Your task to perform on an android device: open app "Gmail" (install if not already installed) and enter user name: "undecidable@inbox.com" and password: "discouraging" Image 0: 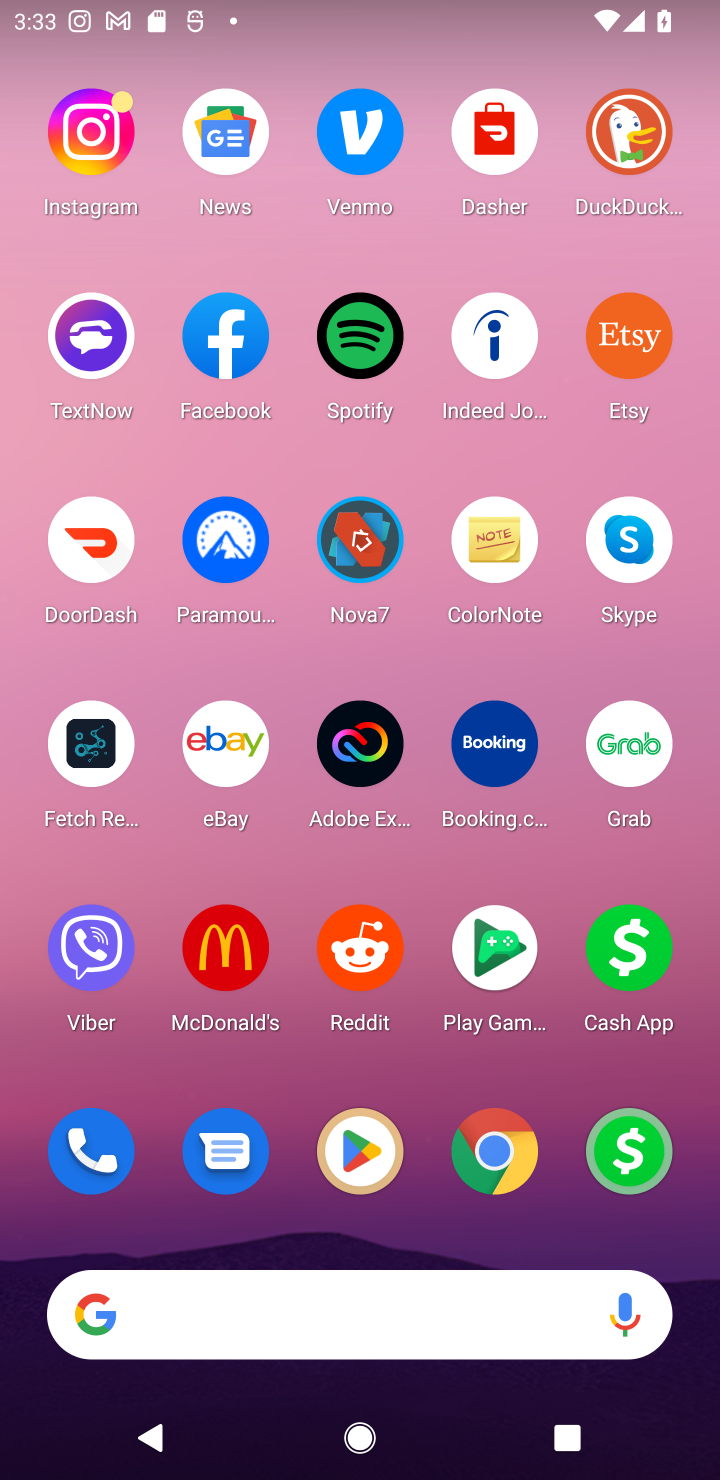
Step 0: press home button
Your task to perform on an android device: open app "Gmail" (install if not already installed) and enter user name: "undecidable@inbox.com" and password: "discouraging" Image 1: 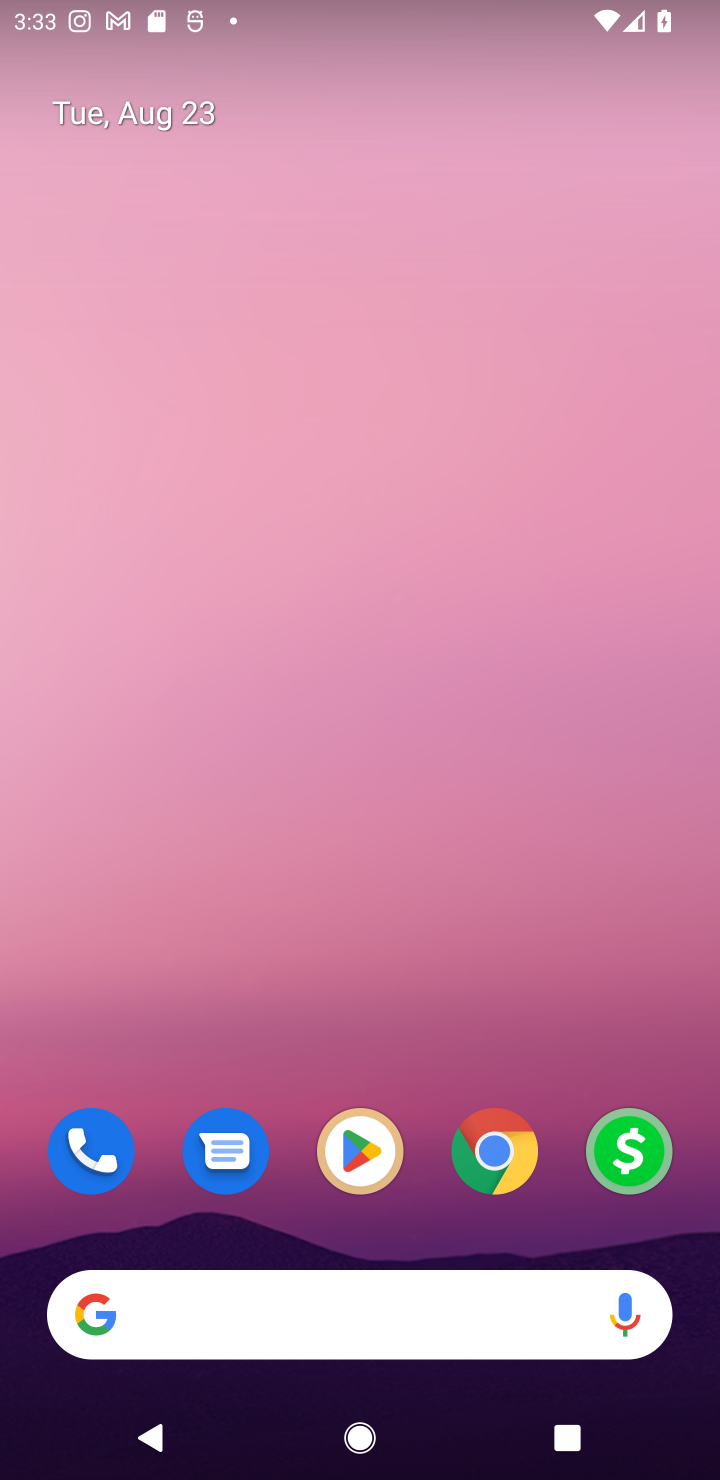
Step 1: click (357, 1161)
Your task to perform on an android device: open app "Gmail" (install if not already installed) and enter user name: "undecidable@inbox.com" and password: "discouraging" Image 2: 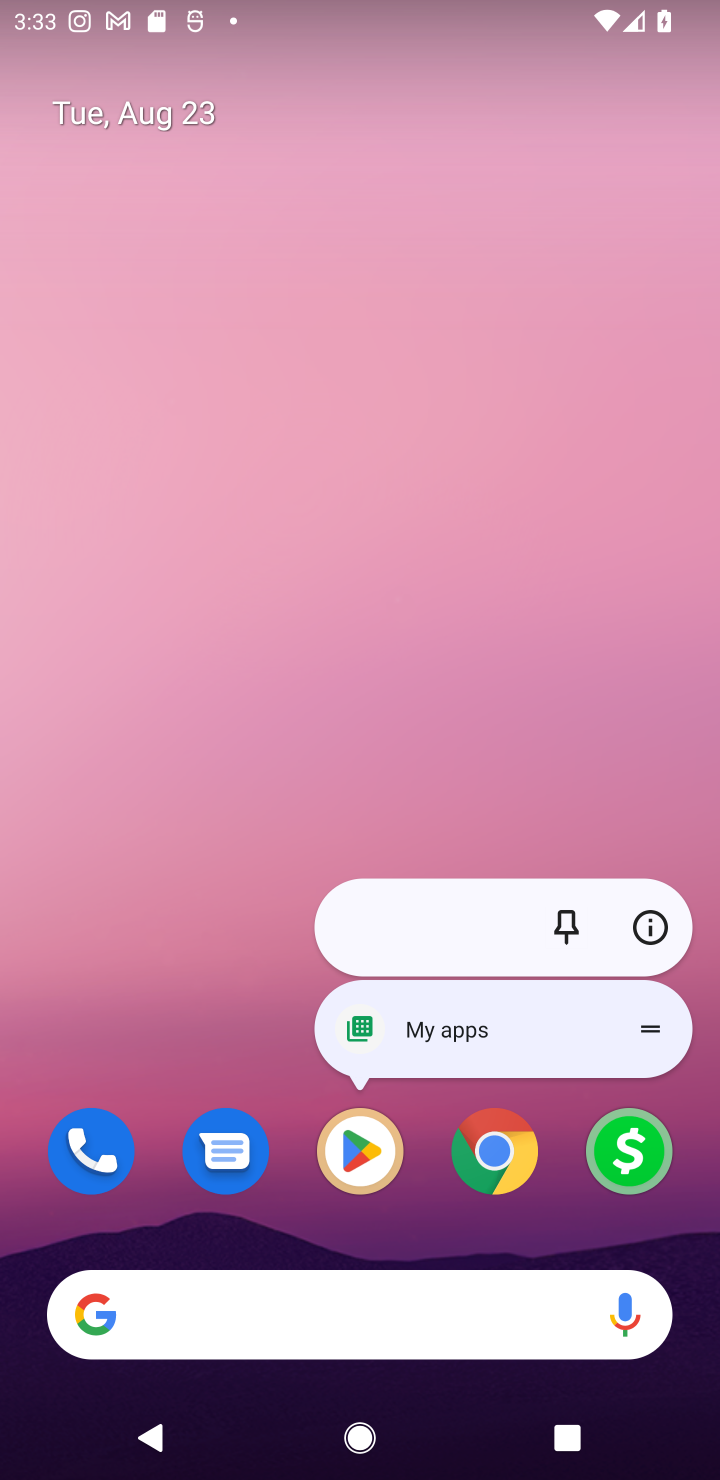
Step 2: click (357, 1166)
Your task to perform on an android device: open app "Gmail" (install if not already installed) and enter user name: "undecidable@inbox.com" and password: "discouraging" Image 3: 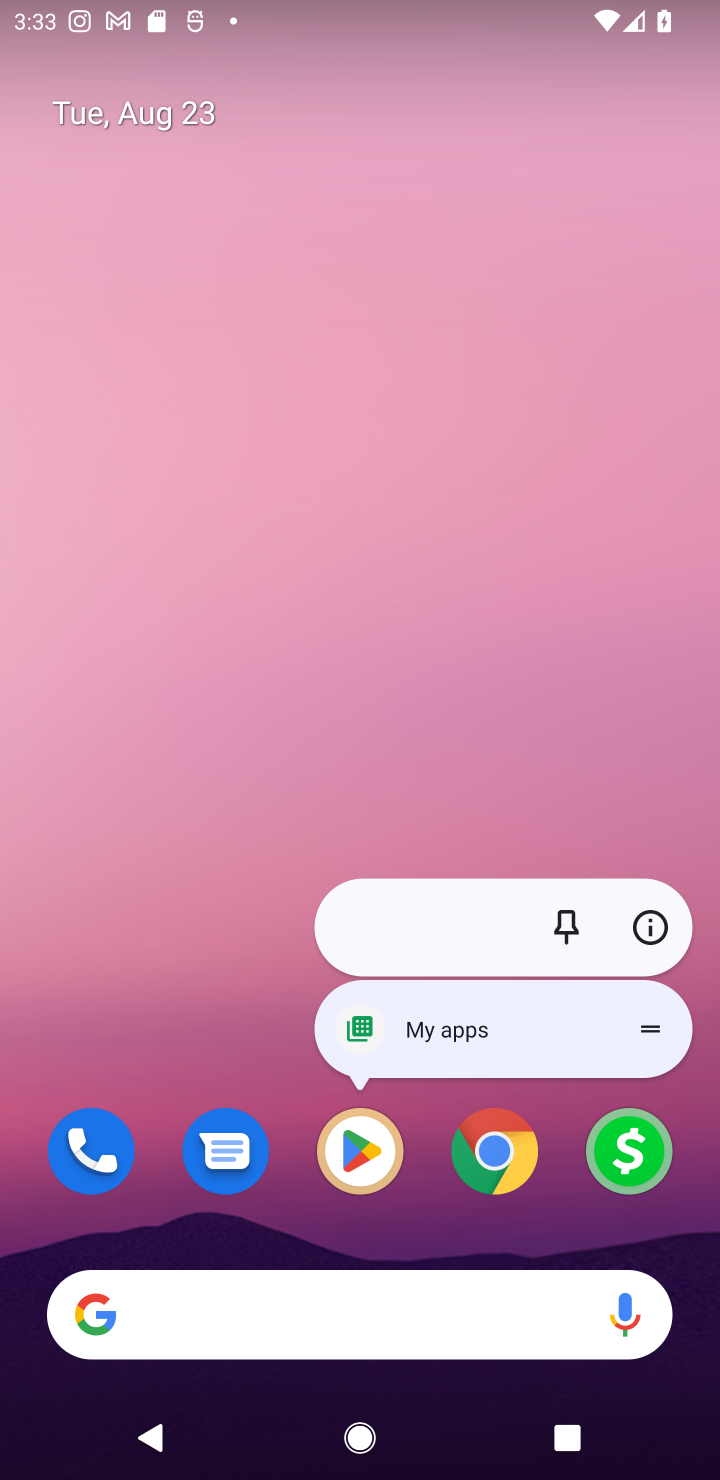
Step 3: click (357, 1166)
Your task to perform on an android device: open app "Gmail" (install if not already installed) and enter user name: "undecidable@inbox.com" and password: "discouraging" Image 4: 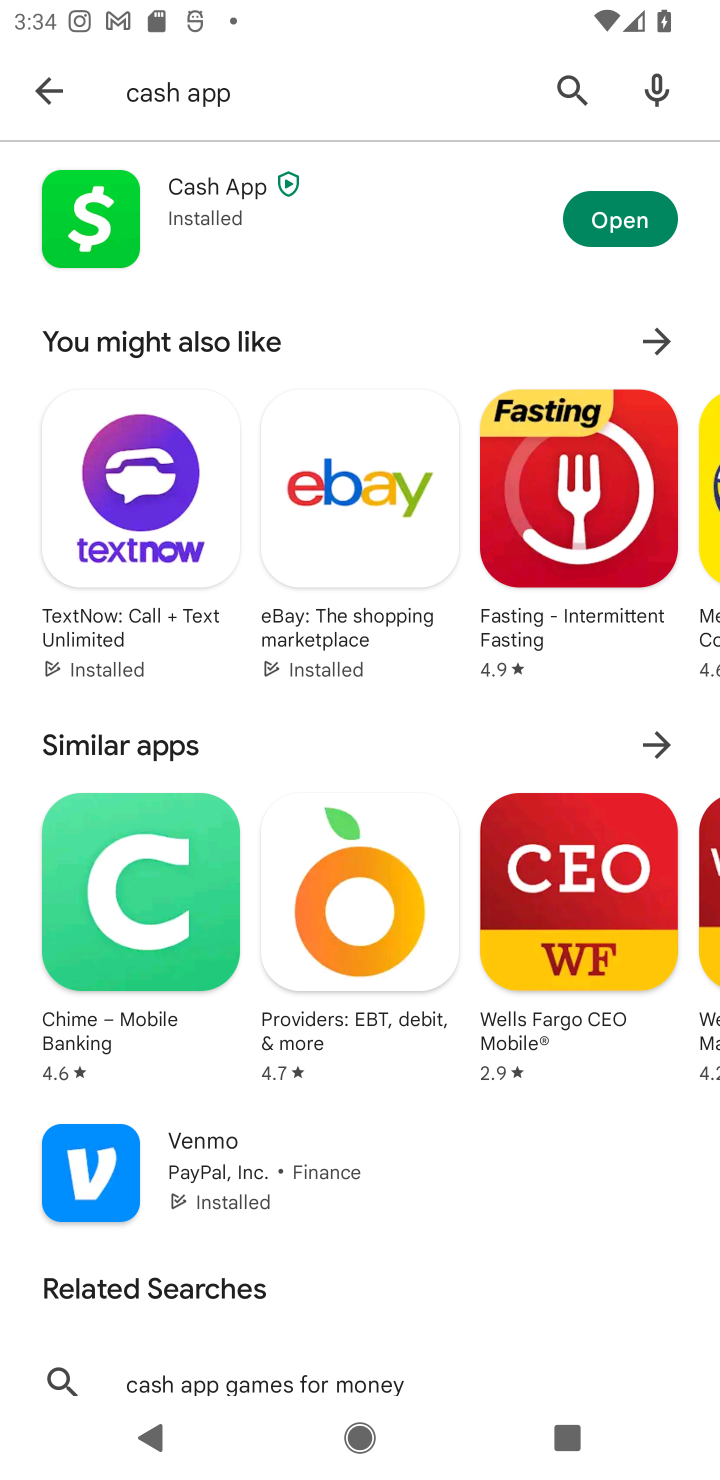
Step 4: click (578, 94)
Your task to perform on an android device: open app "Gmail" (install if not already installed) and enter user name: "undecidable@inbox.com" and password: "discouraging" Image 5: 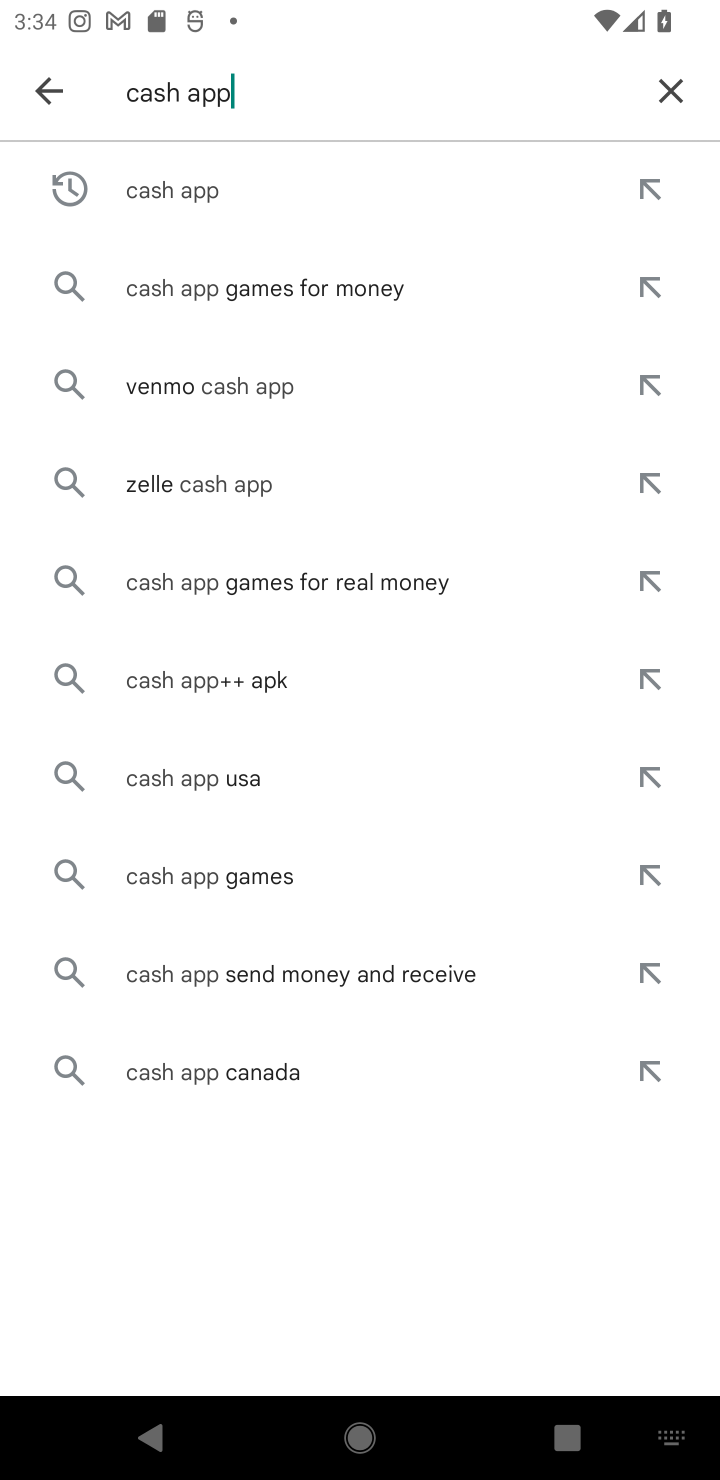
Step 5: click (662, 88)
Your task to perform on an android device: open app "Gmail" (install if not already installed) and enter user name: "undecidable@inbox.com" and password: "discouraging" Image 6: 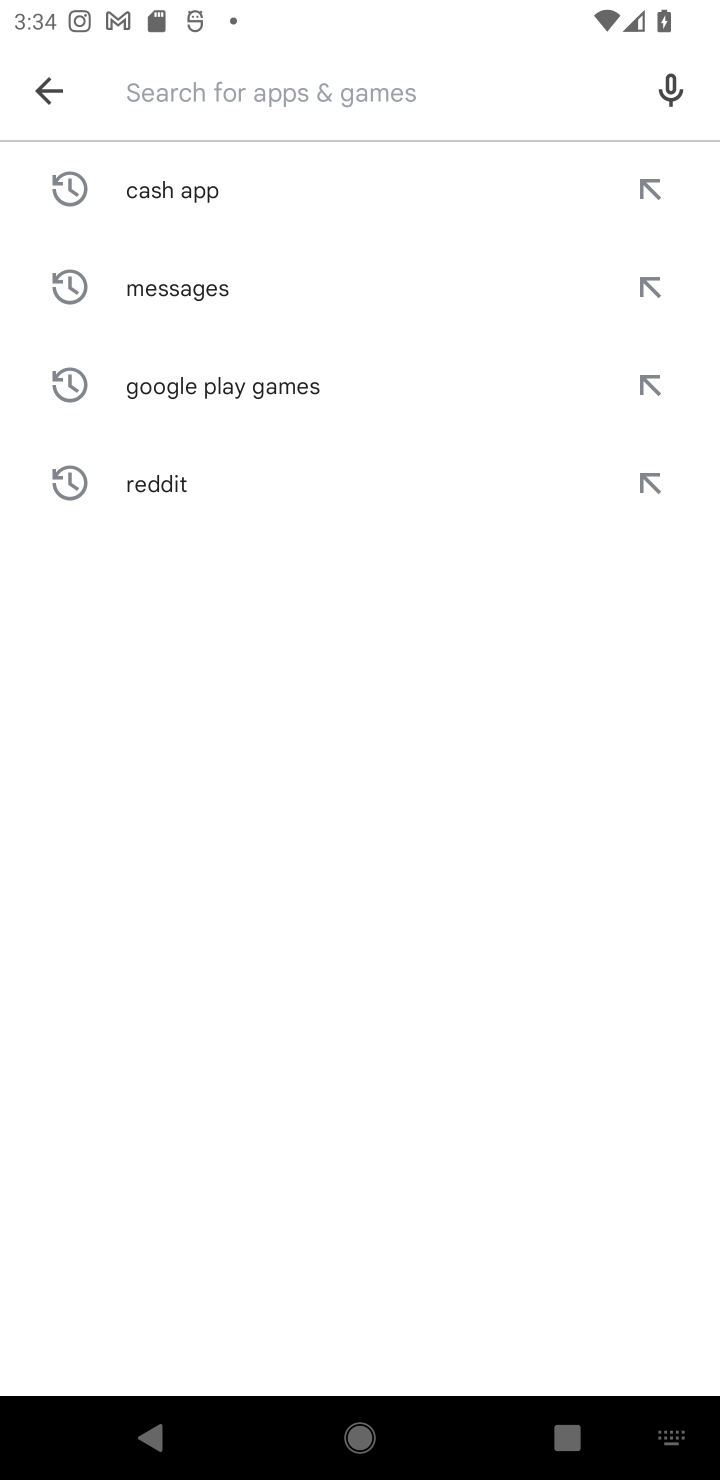
Step 6: type "Gmail"
Your task to perform on an android device: open app "Gmail" (install if not already installed) and enter user name: "undecidable@inbox.com" and password: "discouraging" Image 7: 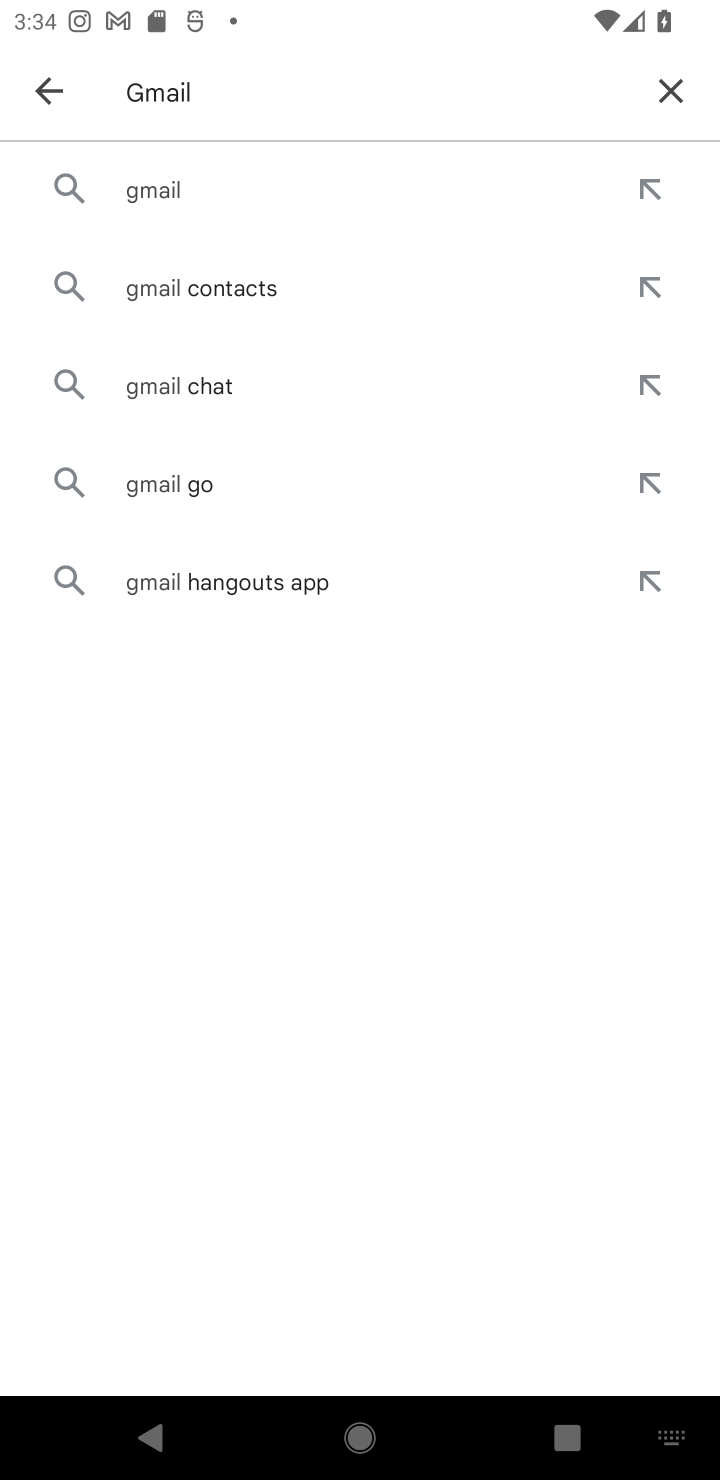
Step 7: click (160, 192)
Your task to perform on an android device: open app "Gmail" (install if not already installed) and enter user name: "undecidable@inbox.com" and password: "discouraging" Image 8: 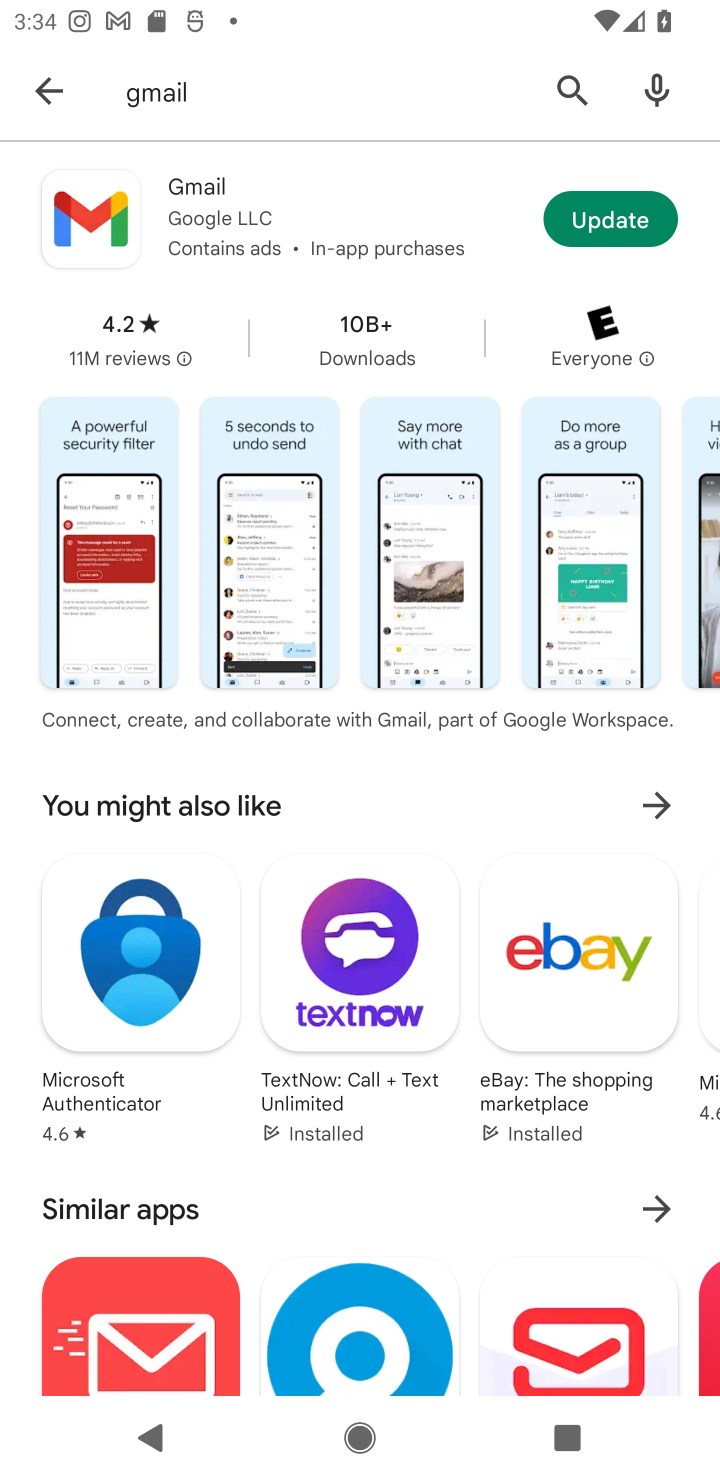
Step 8: click (117, 208)
Your task to perform on an android device: open app "Gmail" (install if not already installed) and enter user name: "undecidable@inbox.com" and password: "discouraging" Image 9: 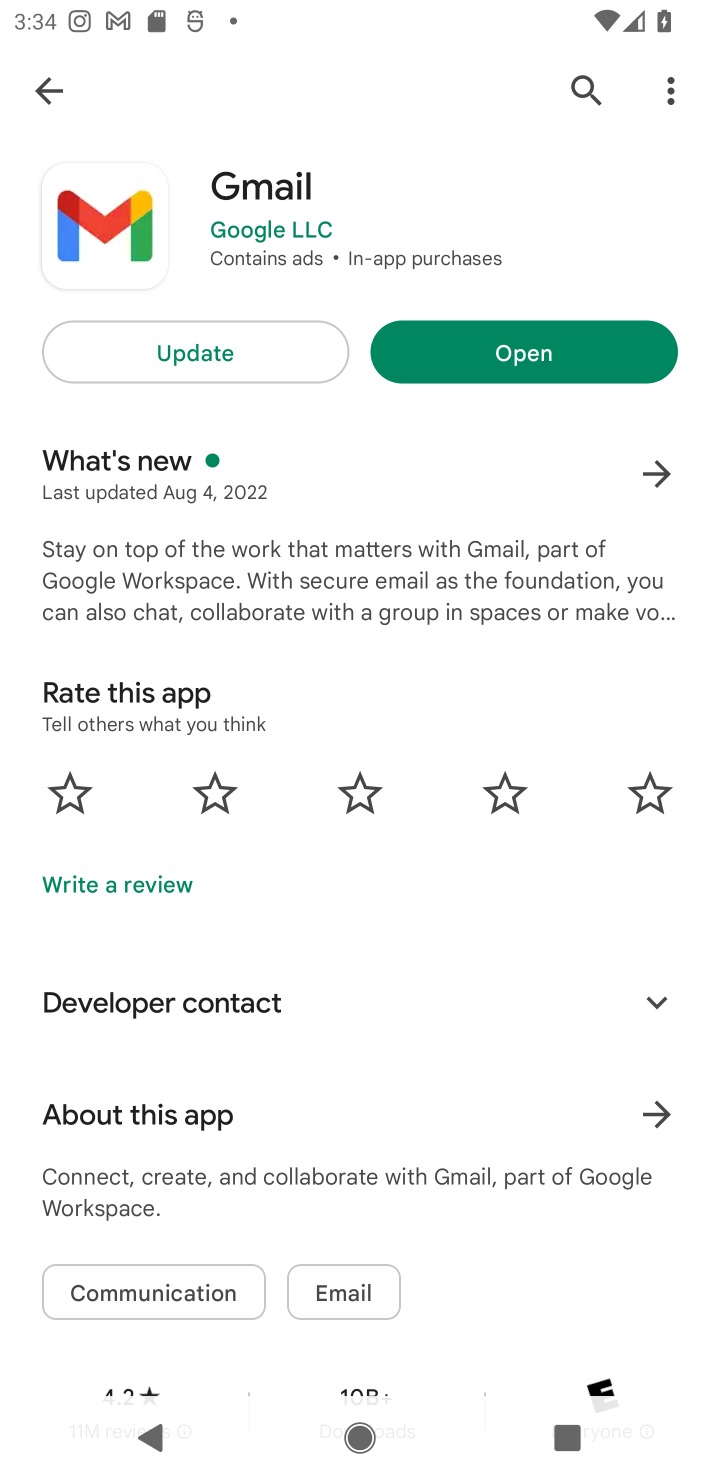
Step 9: click (574, 366)
Your task to perform on an android device: open app "Gmail" (install if not already installed) and enter user name: "undecidable@inbox.com" and password: "discouraging" Image 10: 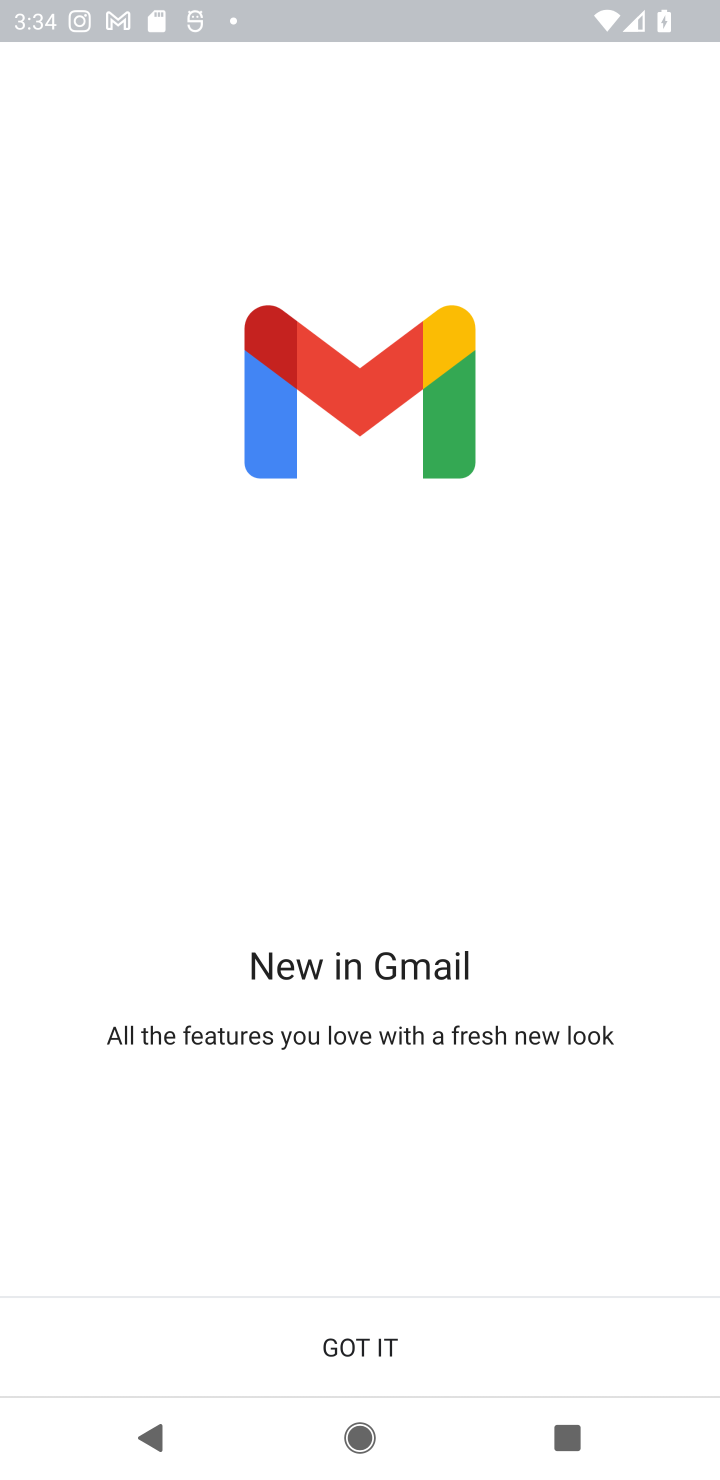
Step 10: click (428, 1361)
Your task to perform on an android device: open app "Gmail" (install if not already installed) and enter user name: "undecidable@inbox.com" and password: "discouraging" Image 11: 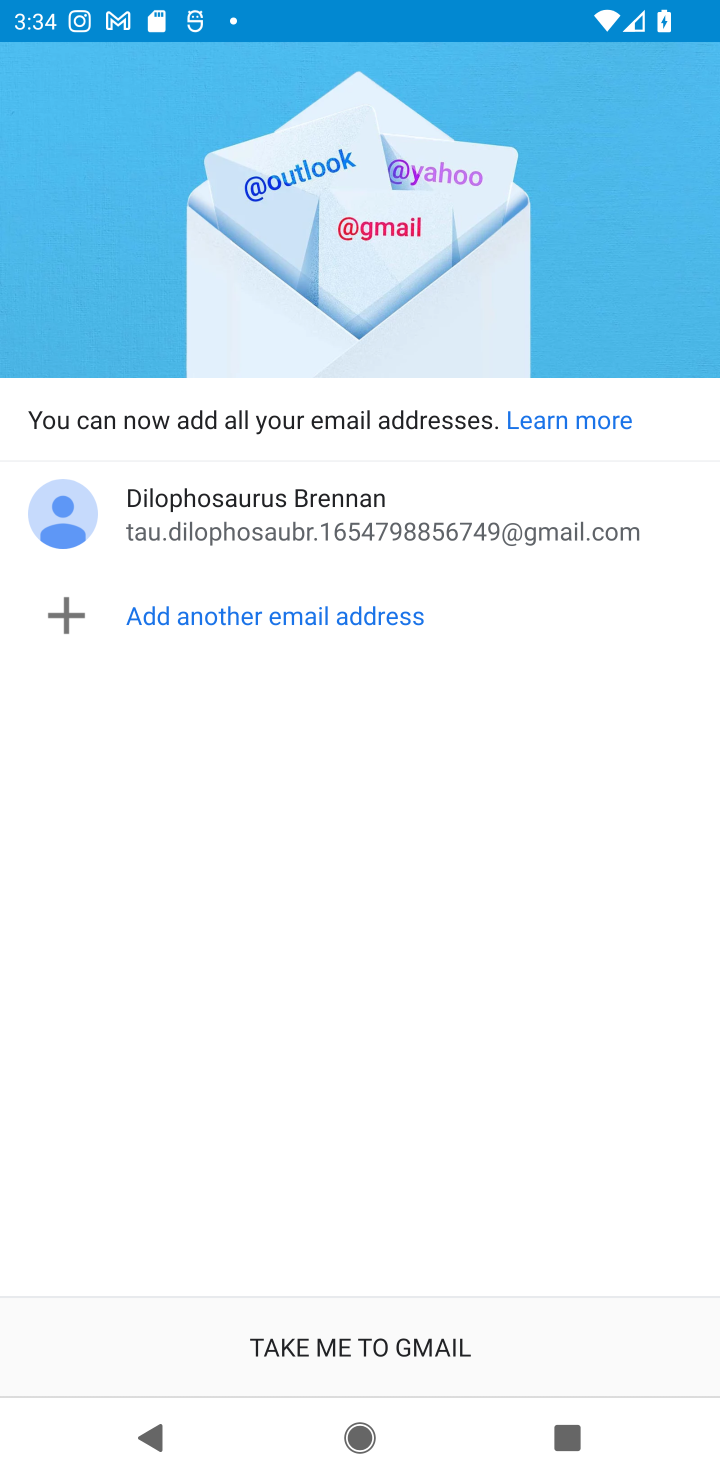
Step 11: click (348, 614)
Your task to perform on an android device: open app "Gmail" (install if not already installed) and enter user name: "undecidable@inbox.com" and password: "discouraging" Image 12: 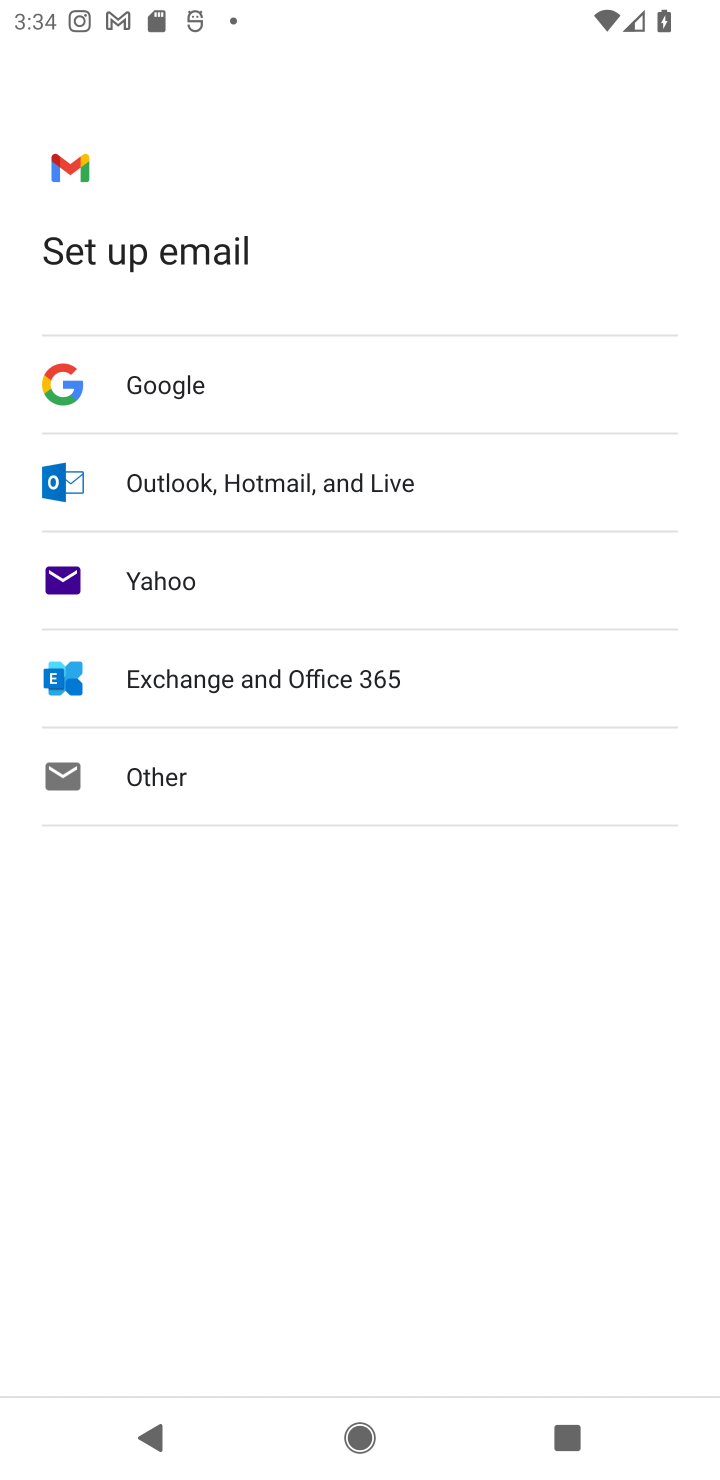
Step 12: task complete